Your task to perform on an android device: Show me productivity apps on the Play Store Image 0: 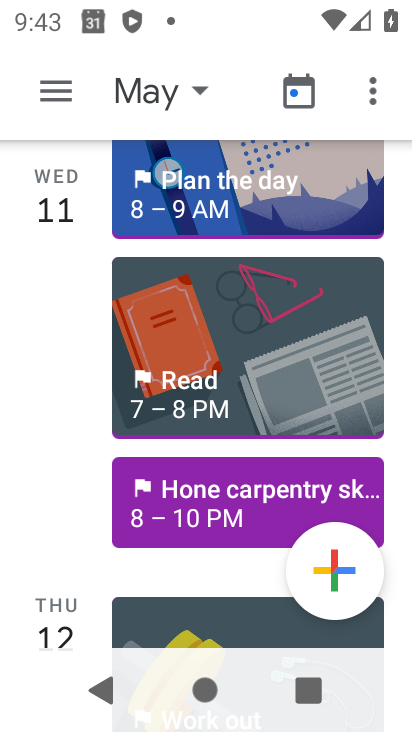
Step 0: click (53, 95)
Your task to perform on an android device: Show me productivity apps on the Play Store Image 1: 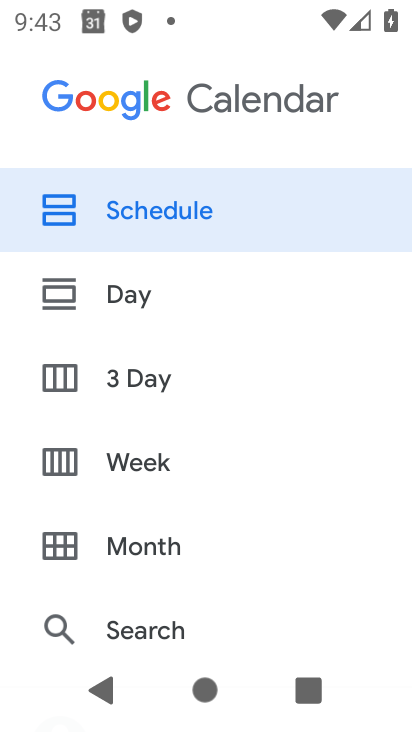
Step 1: press home button
Your task to perform on an android device: Show me productivity apps on the Play Store Image 2: 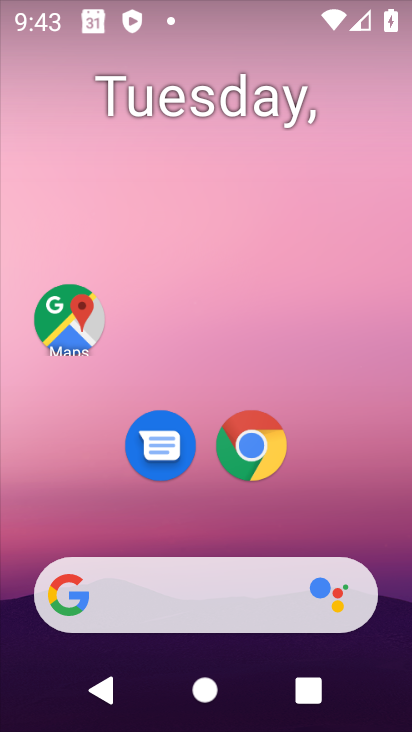
Step 2: drag from (209, 531) to (214, 95)
Your task to perform on an android device: Show me productivity apps on the Play Store Image 3: 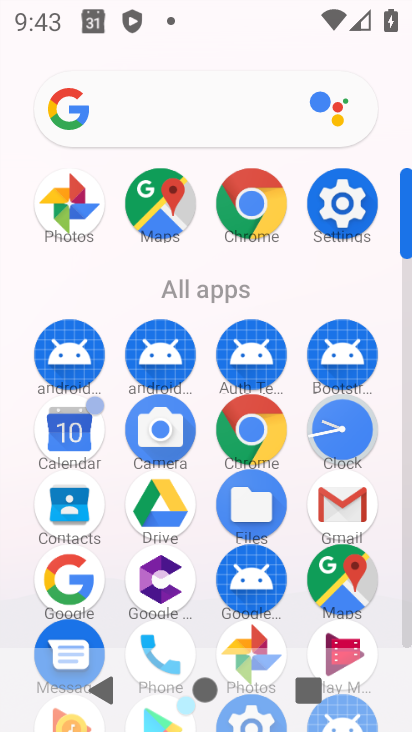
Step 3: drag from (208, 552) to (198, 201)
Your task to perform on an android device: Show me productivity apps on the Play Store Image 4: 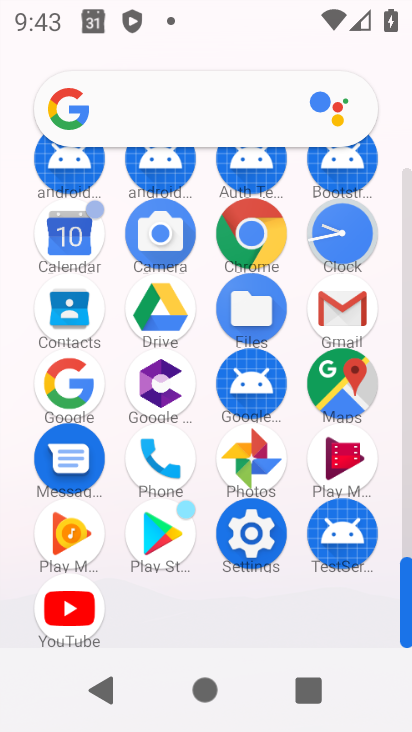
Step 4: click (167, 525)
Your task to perform on an android device: Show me productivity apps on the Play Store Image 5: 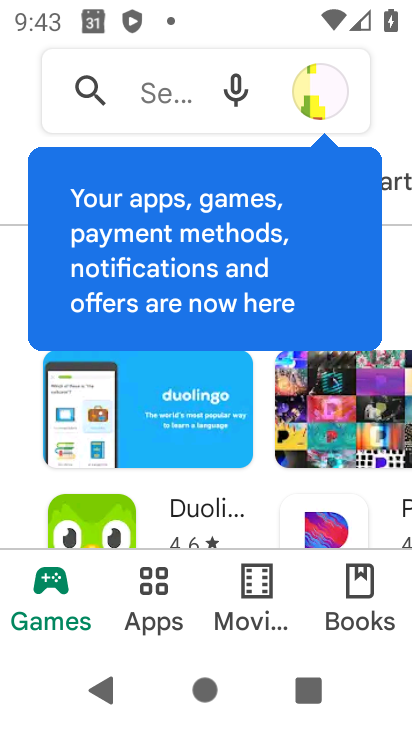
Step 5: click (151, 593)
Your task to perform on an android device: Show me productivity apps on the Play Store Image 6: 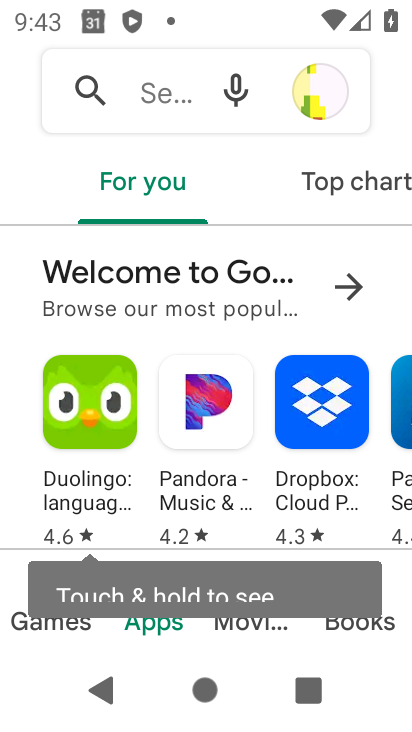
Step 6: drag from (345, 191) to (186, 199)
Your task to perform on an android device: Show me productivity apps on the Play Store Image 7: 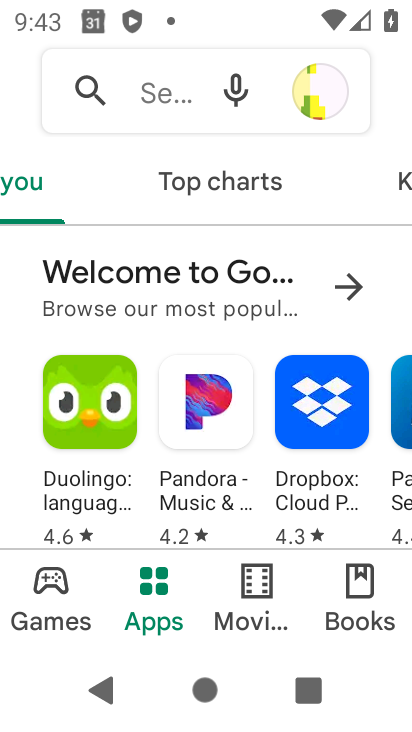
Step 7: drag from (374, 186) to (7, 198)
Your task to perform on an android device: Show me productivity apps on the Play Store Image 8: 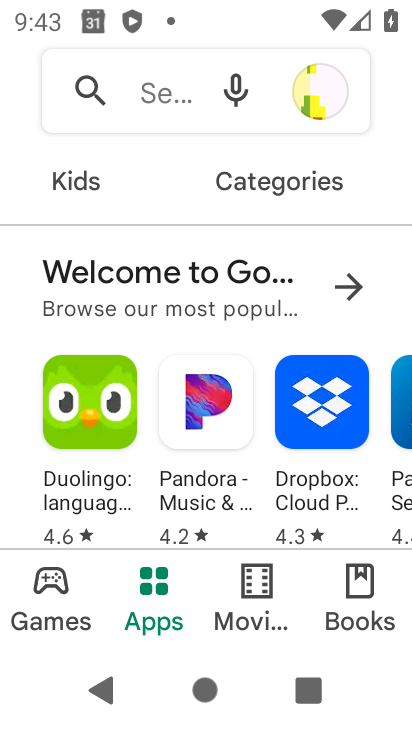
Step 8: click (259, 200)
Your task to perform on an android device: Show me productivity apps on the Play Store Image 9: 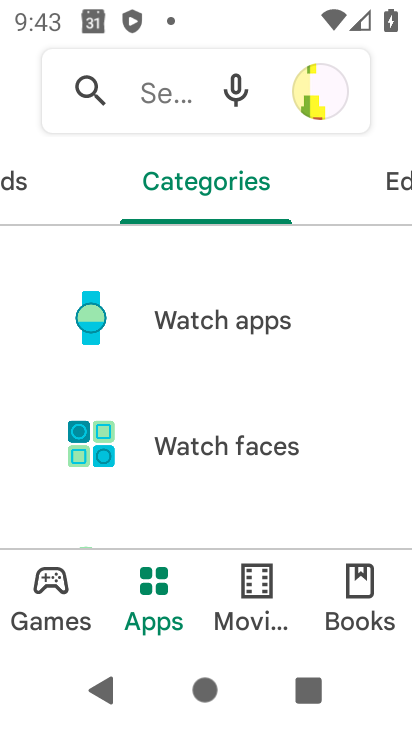
Step 9: drag from (191, 467) to (202, 133)
Your task to perform on an android device: Show me productivity apps on the Play Store Image 10: 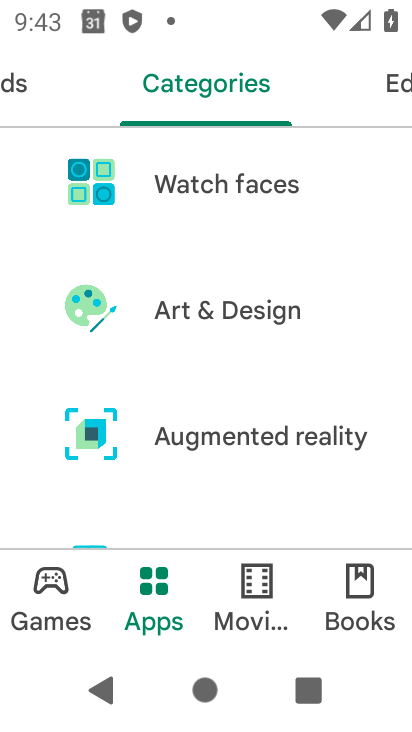
Step 10: drag from (189, 468) to (204, 118)
Your task to perform on an android device: Show me productivity apps on the Play Store Image 11: 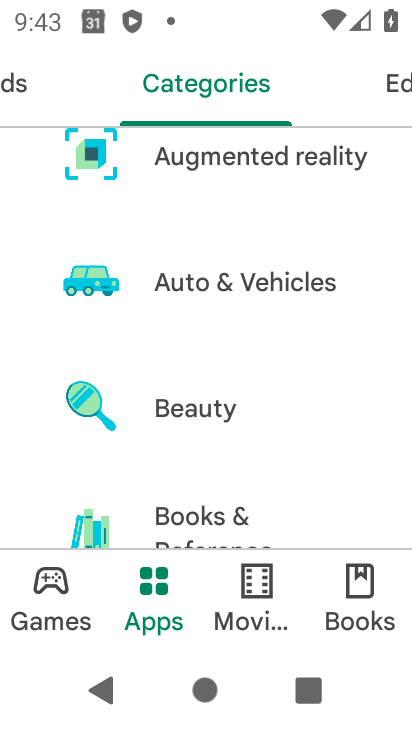
Step 11: drag from (210, 504) to (214, 132)
Your task to perform on an android device: Show me productivity apps on the Play Store Image 12: 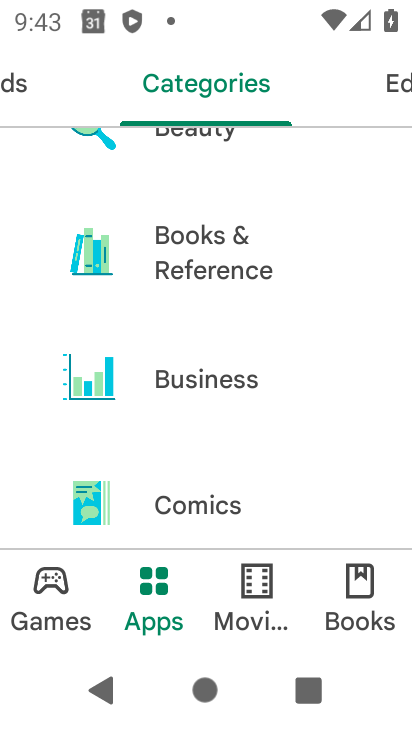
Step 12: drag from (191, 522) to (217, 116)
Your task to perform on an android device: Show me productivity apps on the Play Store Image 13: 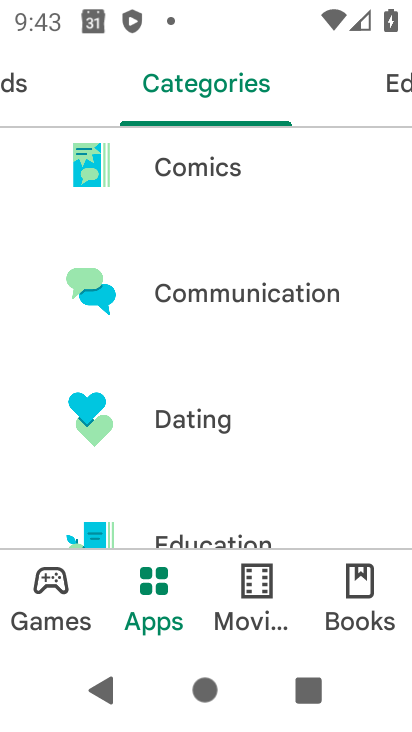
Step 13: drag from (202, 482) to (230, 96)
Your task to perform on an android device: Show me productivity apps on the Play Store Image 14: 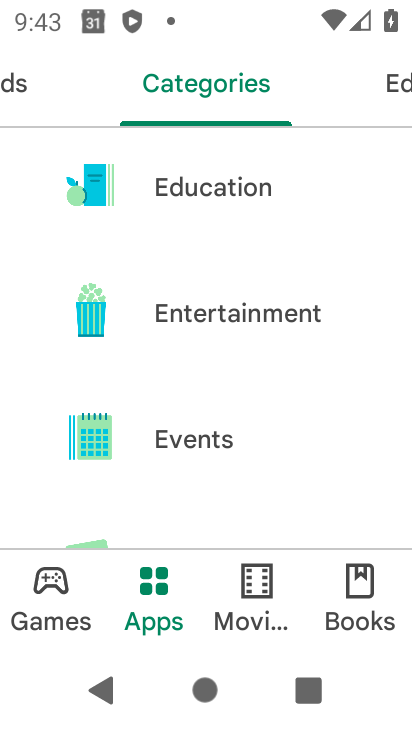
Step 14: drag from (217, 508) to (228, 122)
Your task to perform on an android device: Show me productivity apps on the Play Store Image 15: 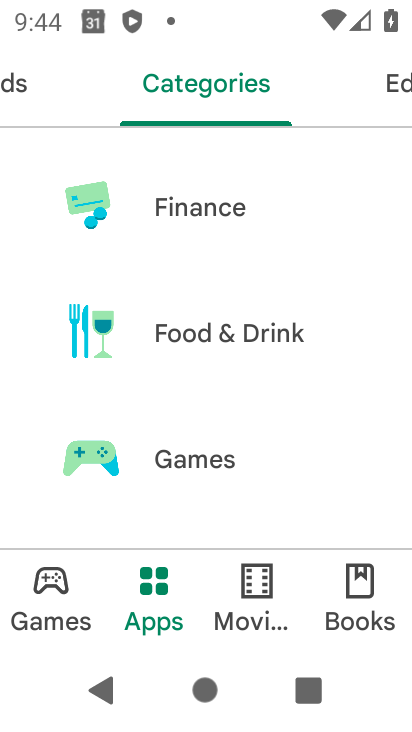
Step 15: drag from (211, 449) to (222, 99)
Your task to perform on an android device: Show me productivity apps on the Play Store Image 16: 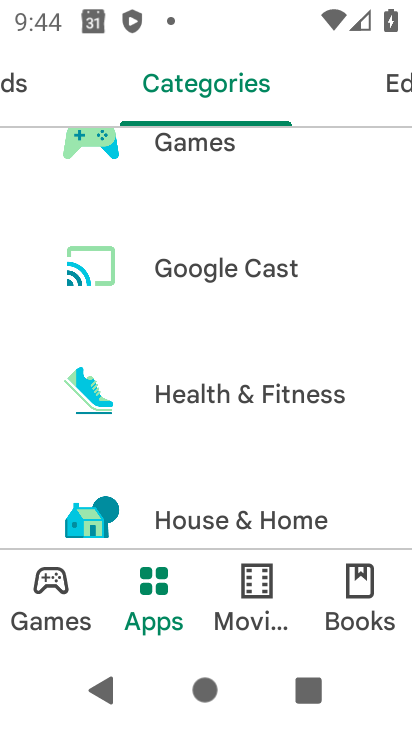
Step 16: drag from (197, 502) to (224, 160)
Your task to perform on an android device: Show me productivity apps on the Play Store Image 17: 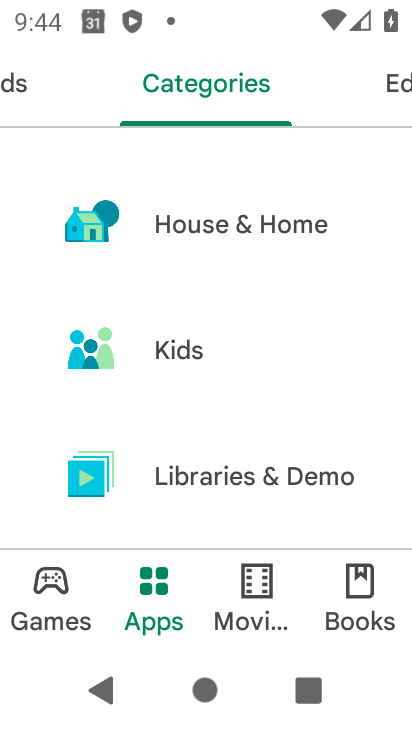
Step 17: drag from (188, 513) to (214, 122)
Your task to perform on an android device: Show me productivity apps on the Play Store Image 18: 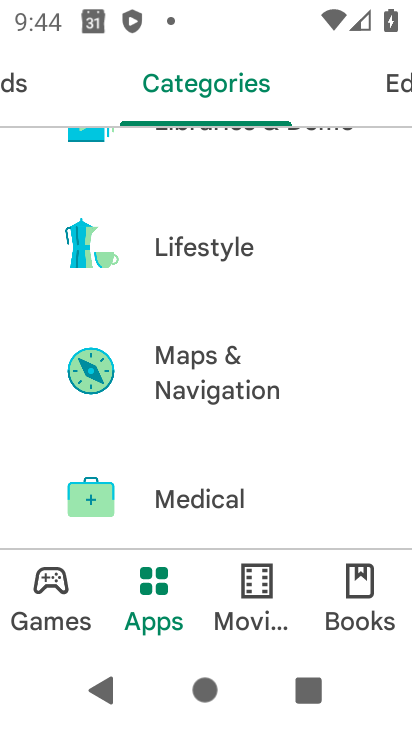
Step 18: drag from (199, 477) to (227, 171)
Your task to perform on an android device: Show me productivity apps on the Play Store Image 19: 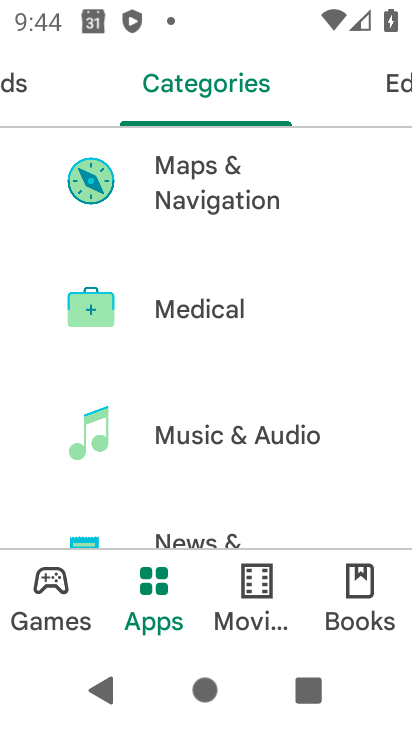
Step 19: drag from (206, 496) to (232, 176)
Your task to perform on an android device: Show me productivity apps on the Play Store Image 20: 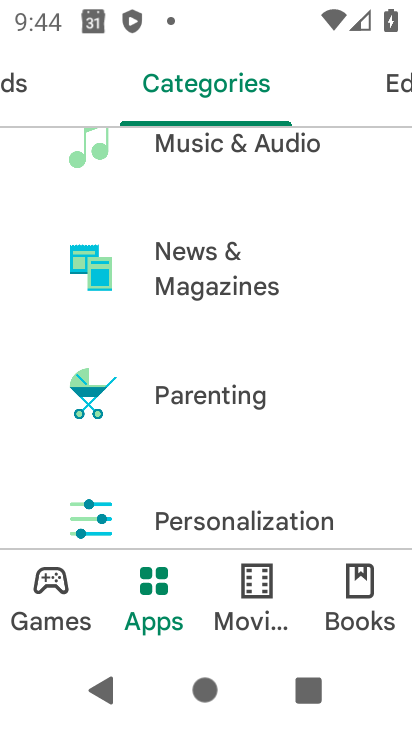
Step 20: drag from (205, 495) to (232, 181)
Your task to perform on an android device: Show me productivity apps on the Play Store Image 21: 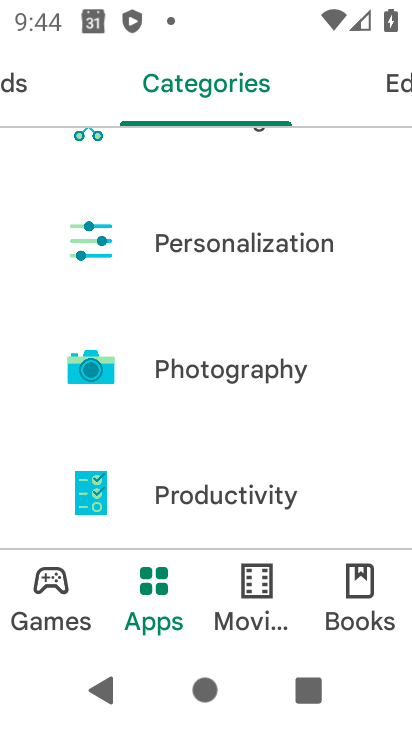
Step 21: drag from (208, 512) to (216, 127)
Your task to perform on an android device: Show me productivity apps on the Play Store Image 22: 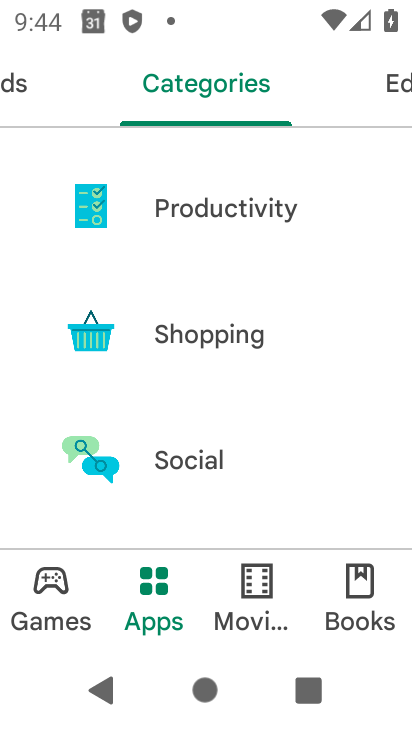
Step 22: click (215, 207)
Your task to perform on an android device: Show me productivity apps on the Play Store Image 23: 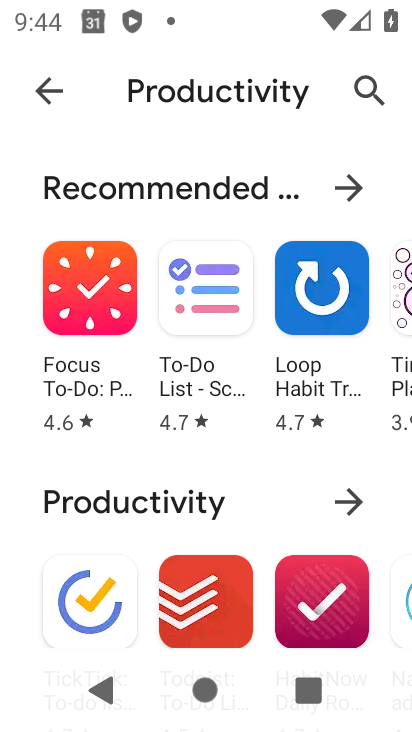
Step 23: task complete